Your task to perform on an android device: Open settings on Google Maps Image 0: 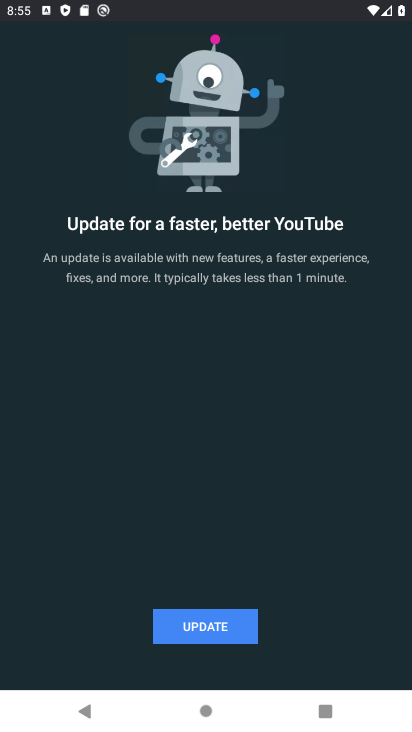
Step 0: press home button
Your task to perform on an android device: Open settings on Google Maps Image 1: 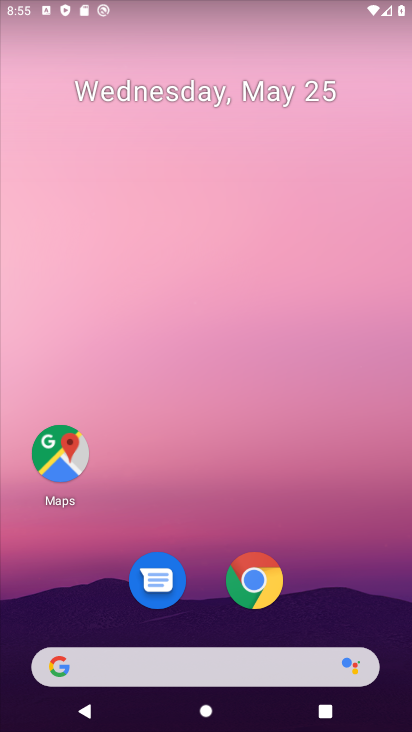
Step 1: click (58, 458)
Your task to perform on an android device: Open settings on Google Maps Image 2: 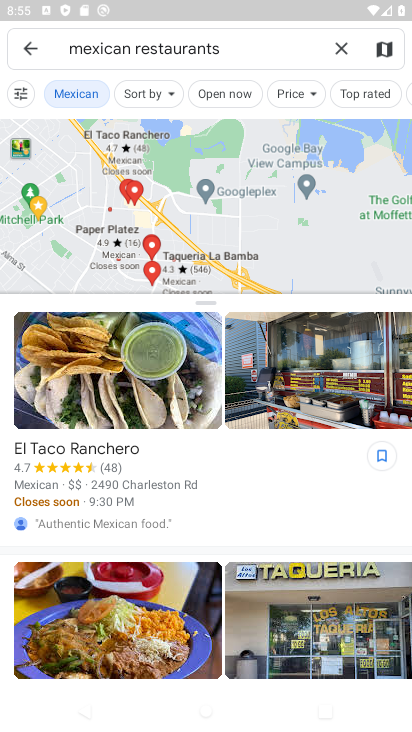
Step 2: click (341, 49)
Your task to perform on an android device: Open settings on Google Maps Image 3: 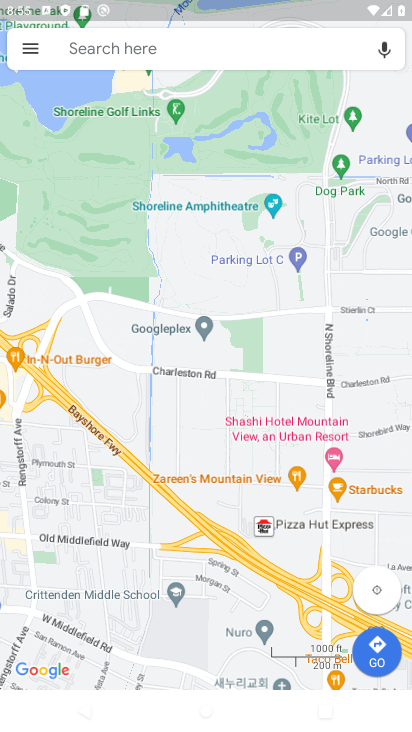
Step 3: click (33, 50)
Your task to perform on an android device: Open settings on Google Maps Image 4: 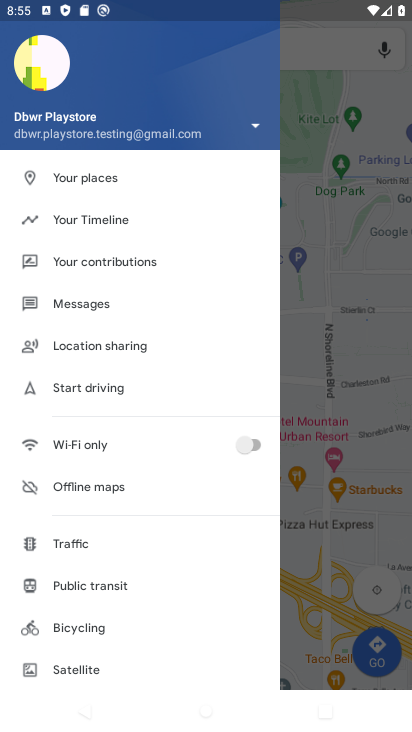
Step 4: drag from (22, 464) to (160, 115)
Your task to perform on an android device: Open settings on Google Maps Image 5: 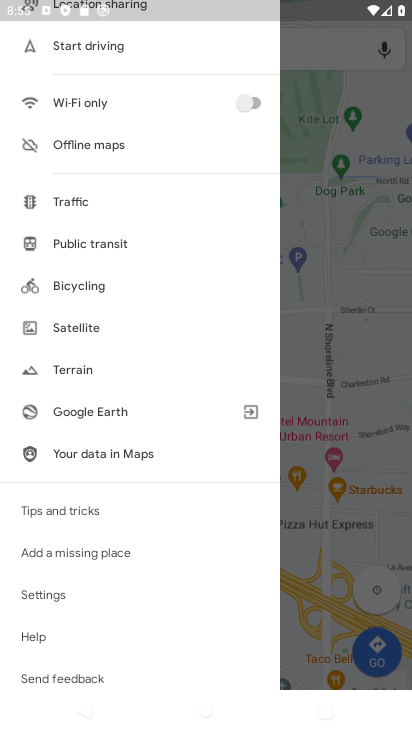
Step 5: click (33, 590)
Your task to perform on an android device: Open settings on Google Maps Image 6: 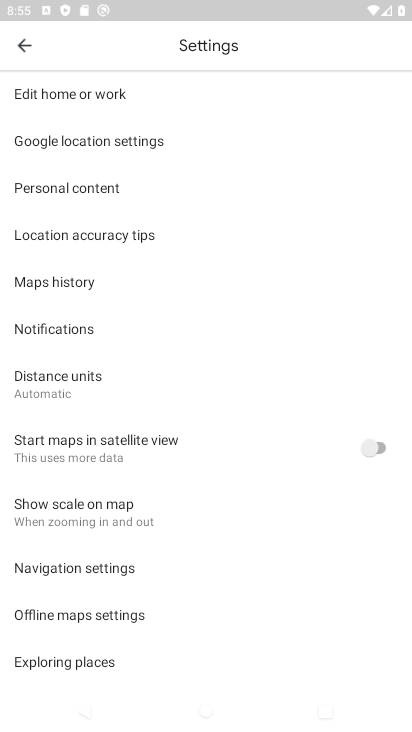
Step 6: task complete